Your task to perform on an android device: turn off wifi Image 0: 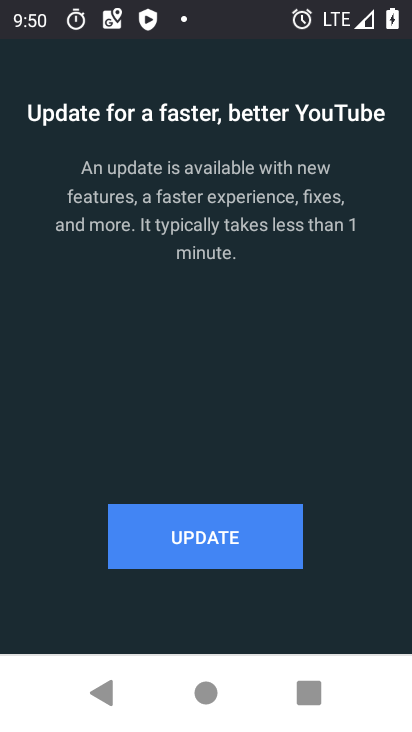
Step 0: press home button
Your task to perform on an android device: turn off wifi Image 1: 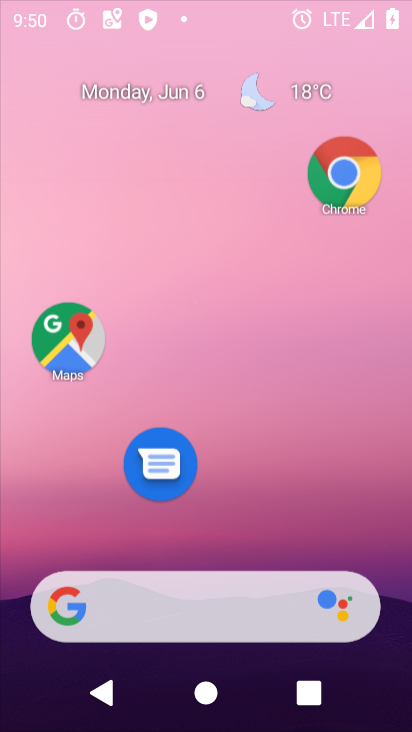
Step 1: drag from (204, 597) to (170, 11)
Your task to perform on an android device: turn off wifi Image 2: 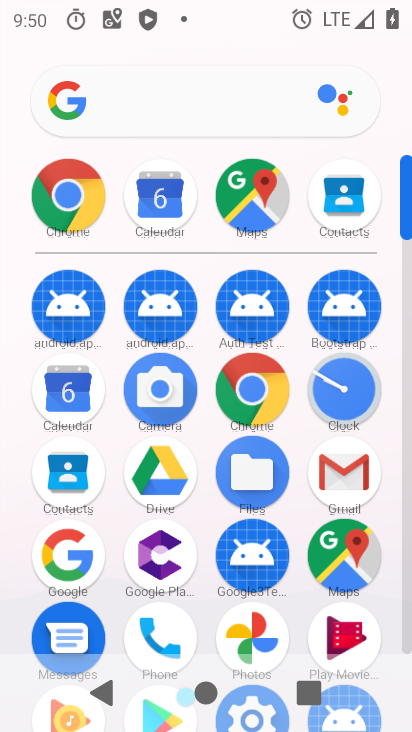
Step 2: drag from (218, 628) to (233, 224)
Your task to perform on an android device: turn off wifi Image 3: 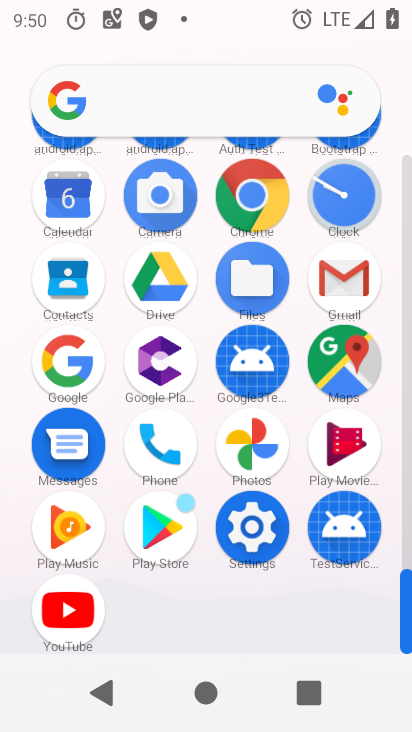
Step 3: click (258, 541)
Your task to perform on an android device: turn off wifi Image 4: 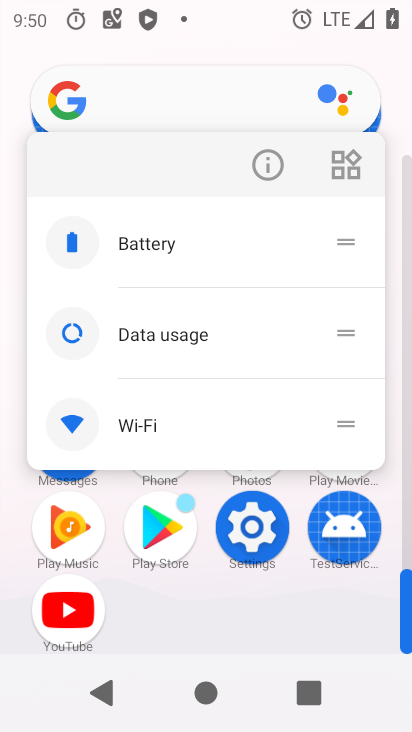
Step 4: click (150, 448)
Your task to perform on an android device: turn off wifi Image 5: 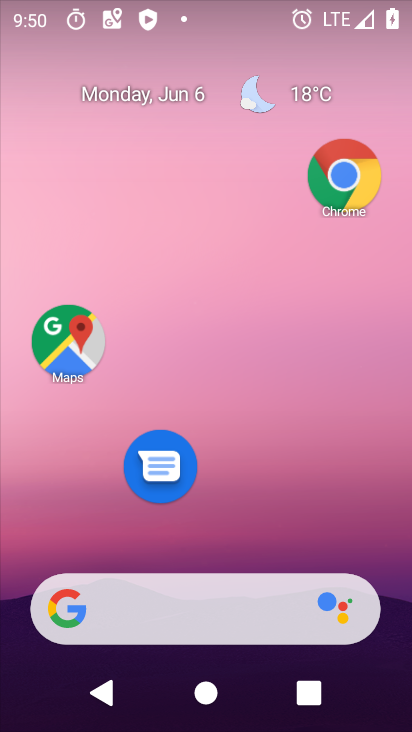
Step 5: drag from (216, 522) to (281, 54)
Your task to perform on an android device: turn off wifi Image 6: 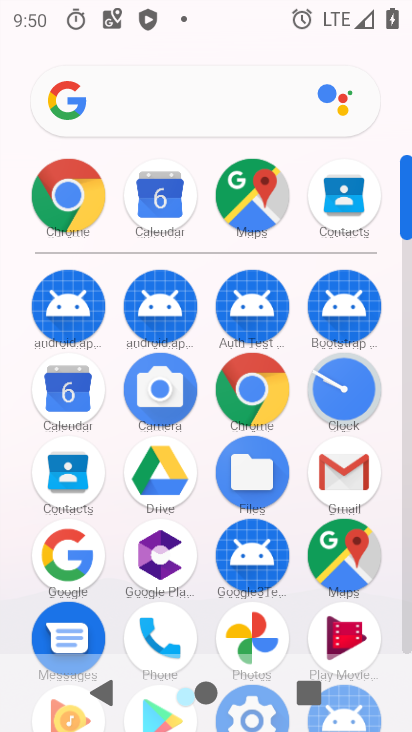
Step 6: drag from (211, 598) to (230, 226)
Your task to perform on an android device: turn off wifi Image 7: 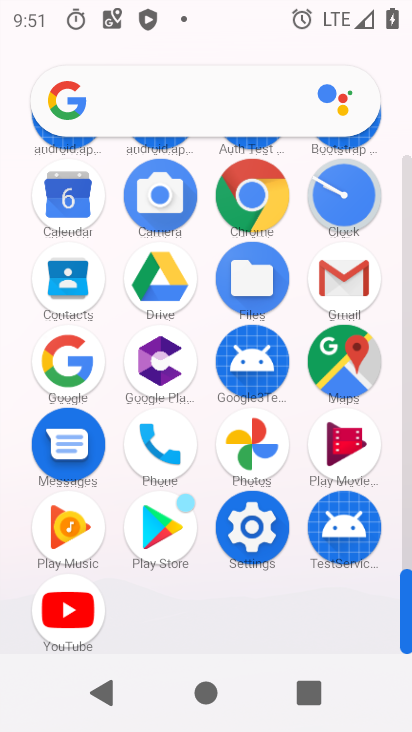
Step 7: click (249, 514)
Your task to perform on an android device: turn off wifi Image 8: 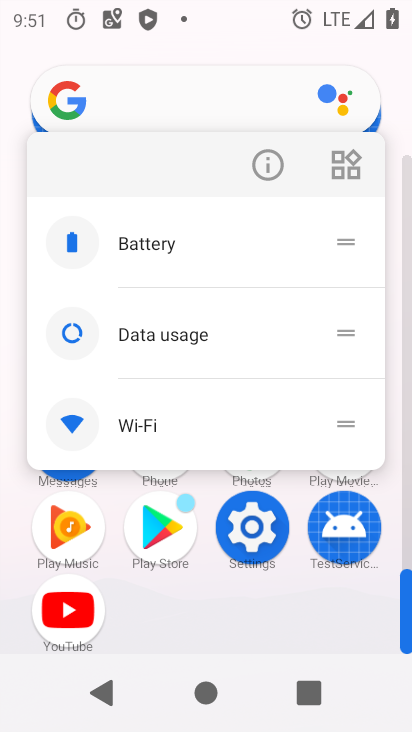
Step 8: click (180, 421)
Your task to perform on an android device: turn off wifi Image 9: 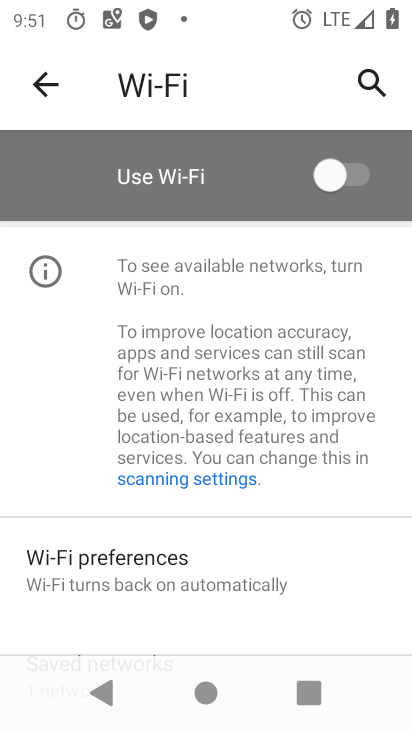
Step 9: task complete